Your task to perform on an android device: check out phone information Image 0: 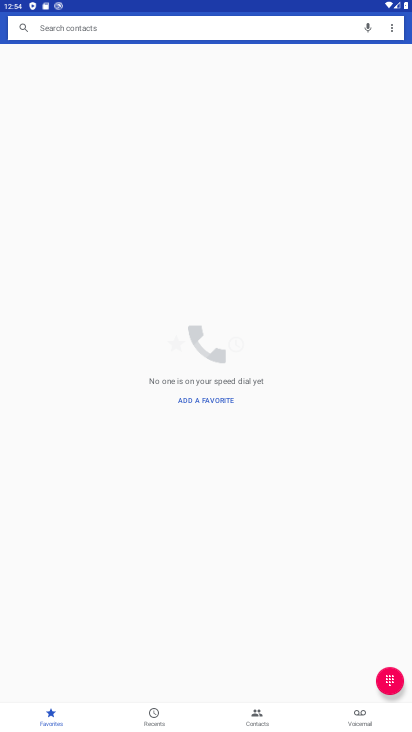
Step 0: press home button
Your task to perform on an android device: check out phone information Image 1: 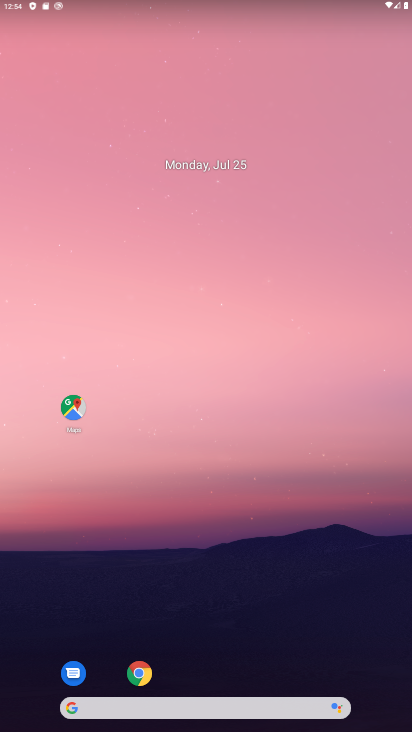
Step 1: drag from (370, 671) to (327, 95)
Your task to perform on an android device: check out phone information Image 2: 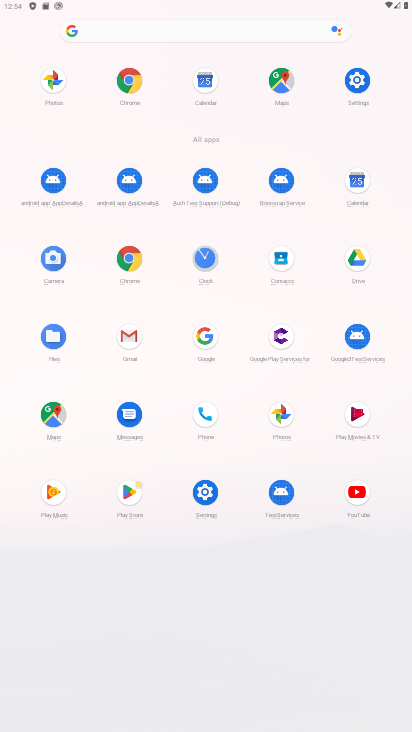
Step 2: click (207, 490)
Your task to perform on an android device: check out phone information Image 3: 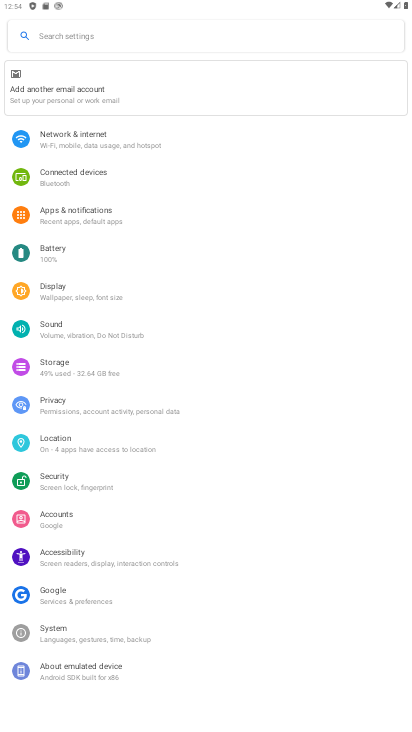
Step 3: click (80, 663)
Your task to perform on an android device: check out phone information Image 4: 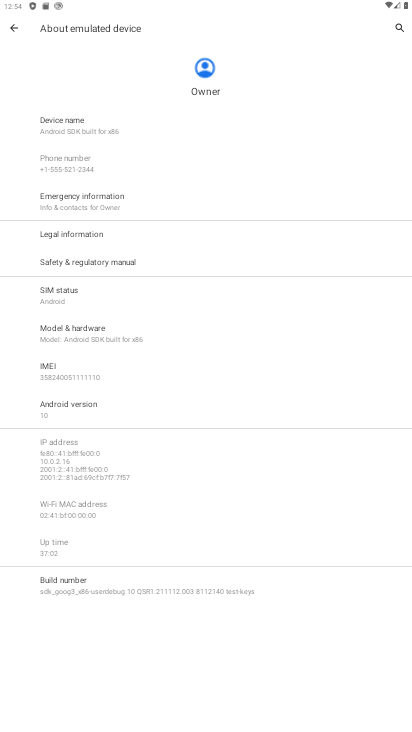
Step 4: task complete